Your task to perform on an android device: Show me popular games on the Play Store Image 0: 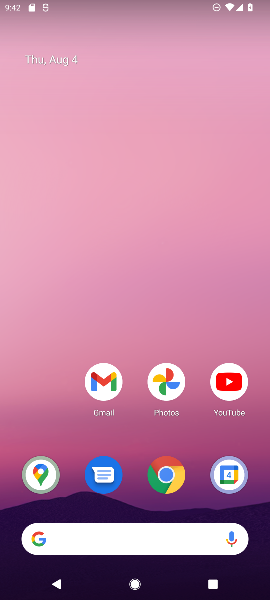
Step 0: drag from (157, 424) to (211, 108)
Your task to perform on an android device: Show me popular games on the Play Store Image 1: 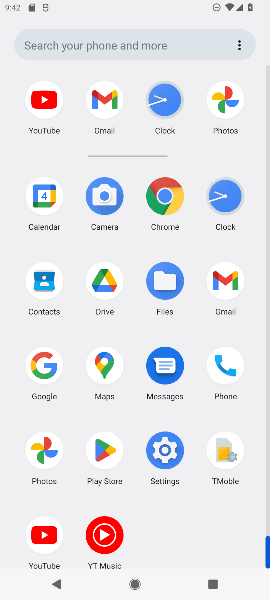
Step 1: click (108, 447)
Your task to perform on an android device: Show me popular games on the Play Store Image 2: 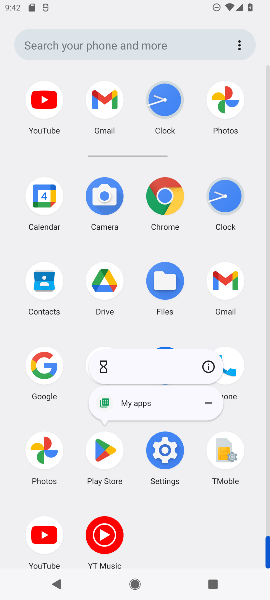
Step 2: click (210, 363)
Your task to perform on an android device: Show me popular games on the Play Store Image 3: 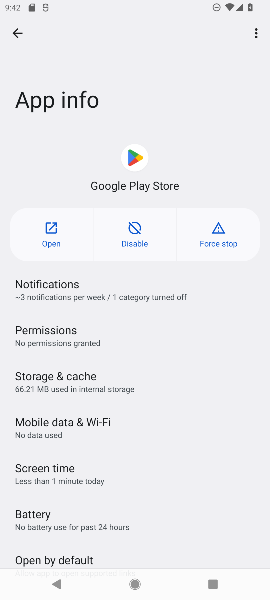
Step 3: click (48, 224)
Your task to perform on an android device: Show me popular games on the Play Store Image 4: 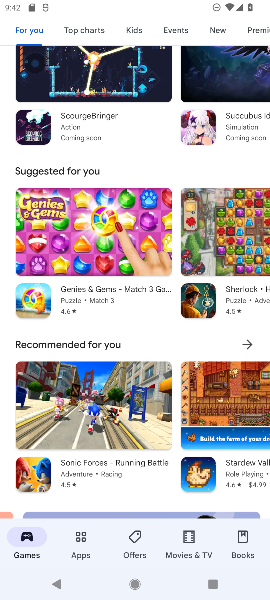
Step 4: task complete